Your task to perform on an android device: Go to battery settings Image 0: 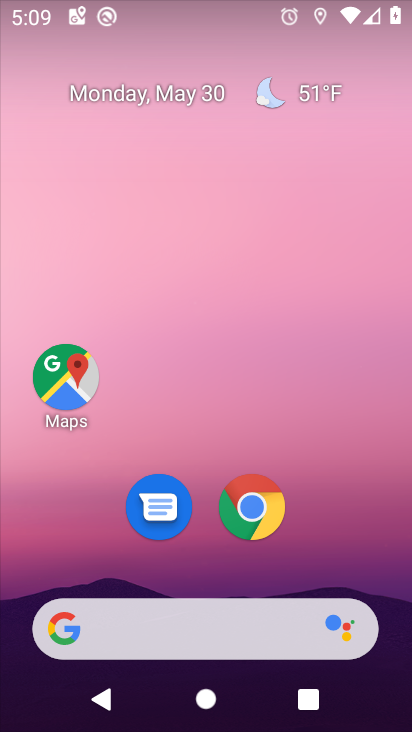
Step 0: press home button
Your task to perform on an android device: Go to battery settings Image 1: 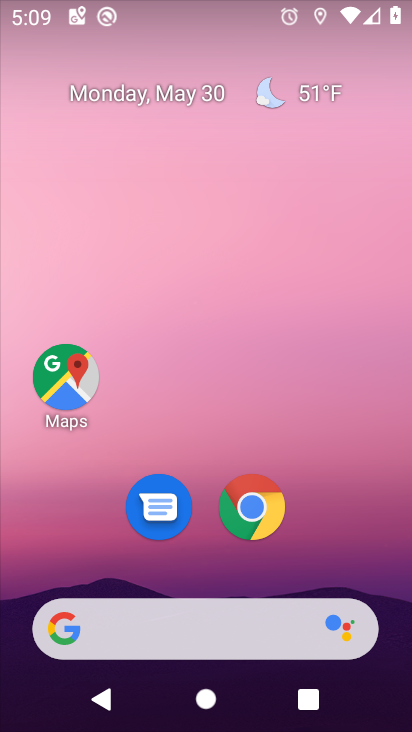
Step 1: drag from (340, 581) to (335, 156)
Your task to perform on an android device: Go to battery settings Image 2: 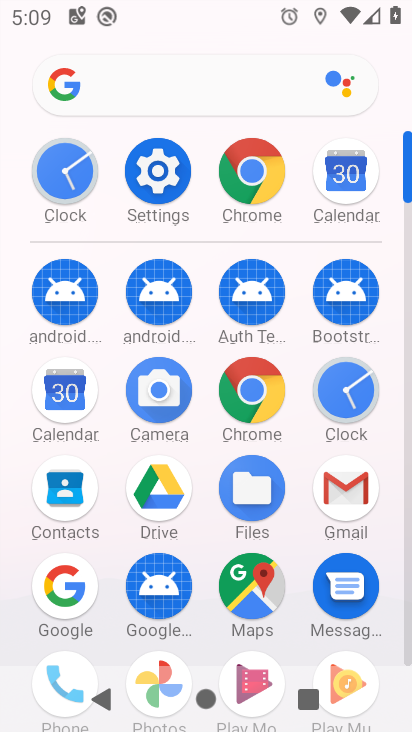
Step 2: click (189, 155)
Your task to perform on an android device: Go to battery settings Image 3: 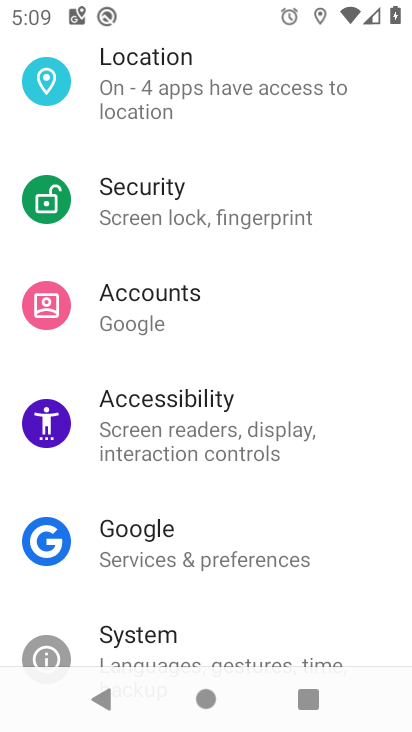
Step 3: drag from (226, 173) to (206, 687)
Your task to perform on an android device: Go to battery settings Image 4: 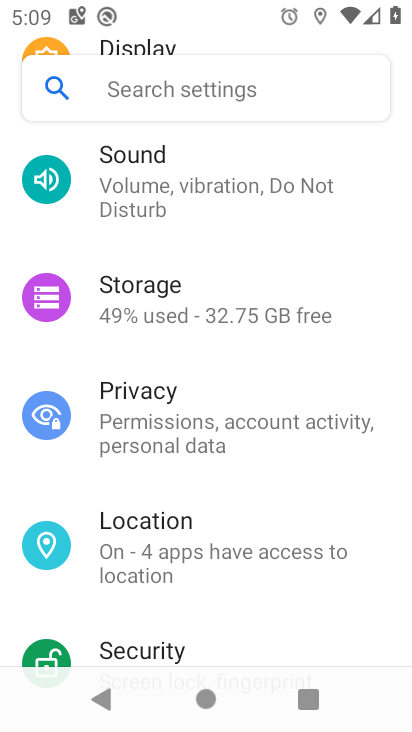
Step 4: drag from (295, 152) to (246, 717)
Your task to perform on an android device: Go to battery settings Image 5: 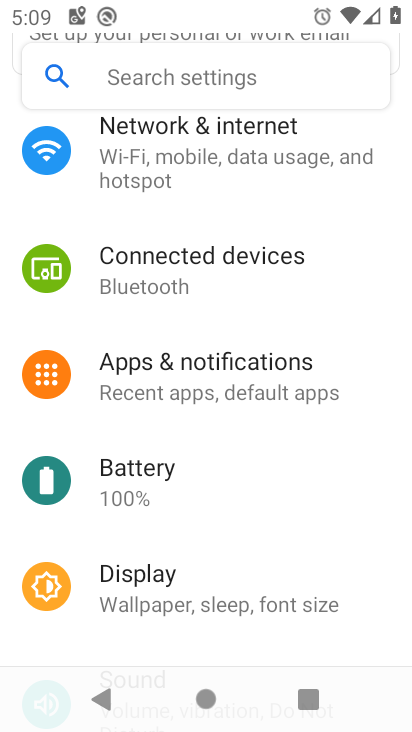
Step 5: click (144, 497)
Your task to perform on an android device: Go to battery settings Image 6: 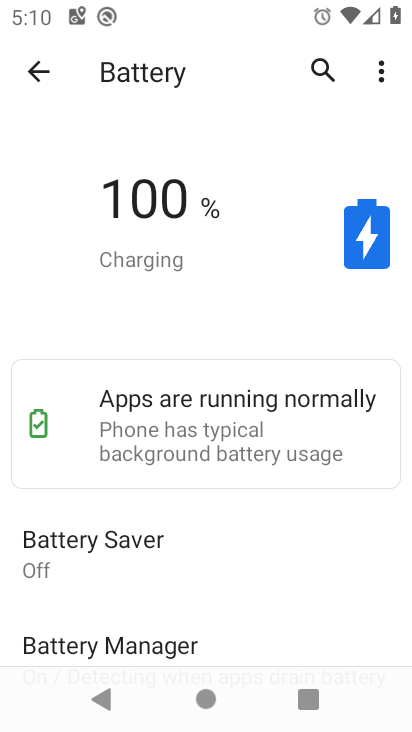
Step 6: task complete